Your task to perform on an android device: Open Google Image 0: 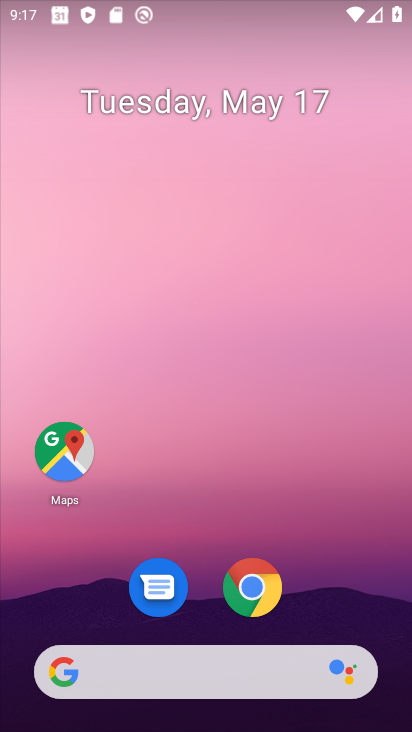
Step 0: drag from (211, 623) to (139, 159)
Your task to perform on an android device: Open Google Image 1: 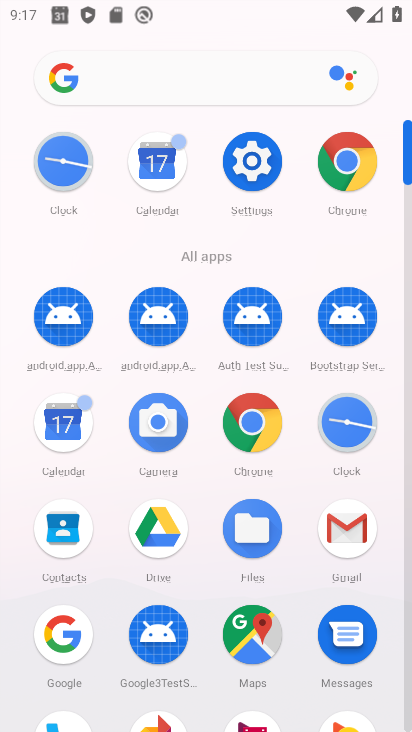
Step 1: click (81, 643)
Your task to perform on an android device: Open Google Image 2: 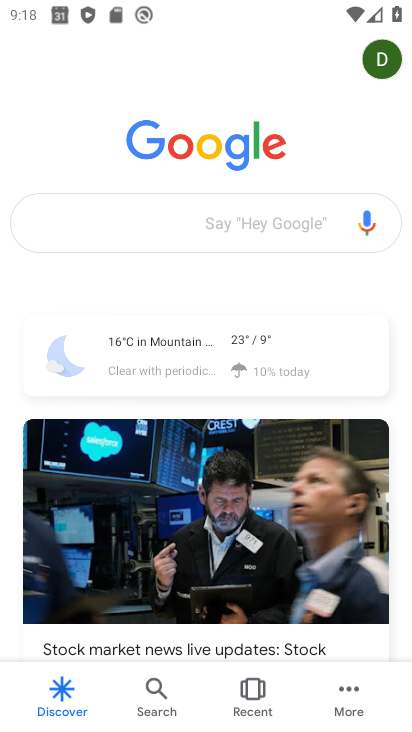
Step 2: task complete